Your task to perform on an android device: Open display settings Image 0: 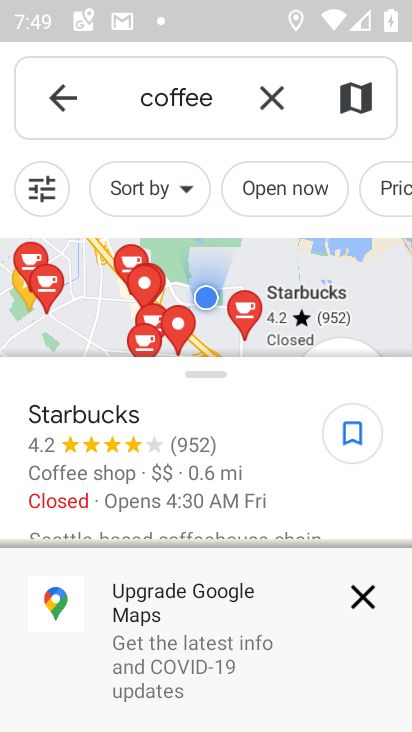
Step 0: press home button
Your task to perform on an android device: Open display settings Image 1: 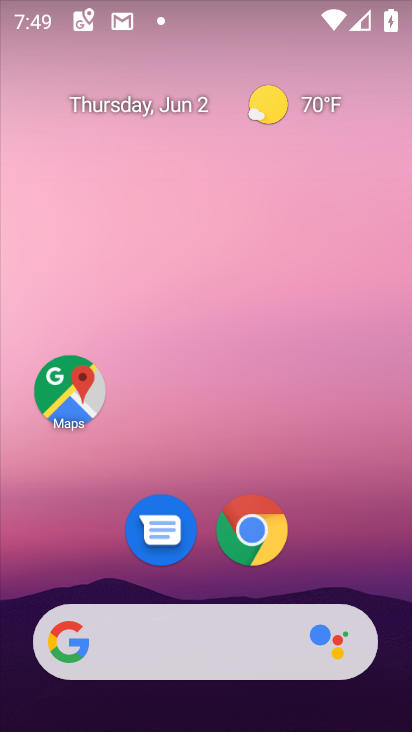
Step 1: drag from (147, 494) to (147, 227)
Your task to perform on an android device: Open display settings Image 2: 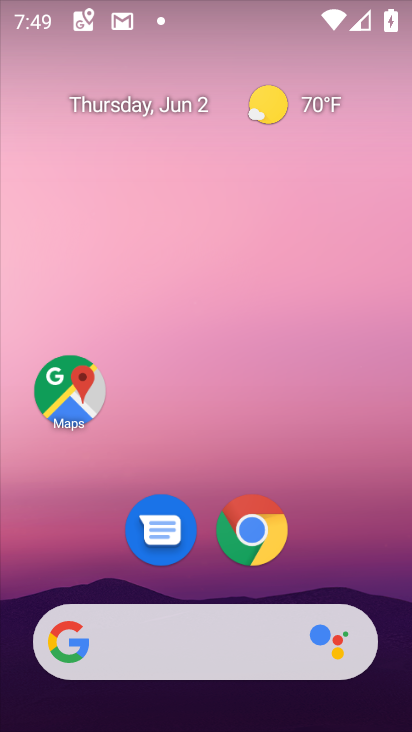
Step 2: drag from (177, 600) to (183, 274)
Your task to perform on an android device: Open display settings Image 3: 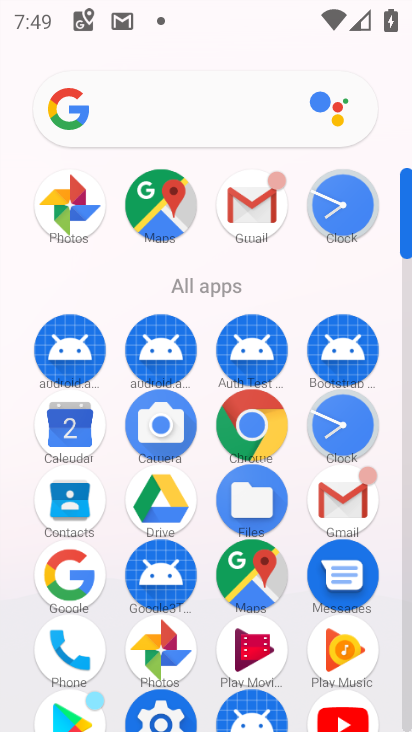
Step 3: drag from (220, 691) to (225, 204)
Your task to perform on an android device: Open display settings Image 4: 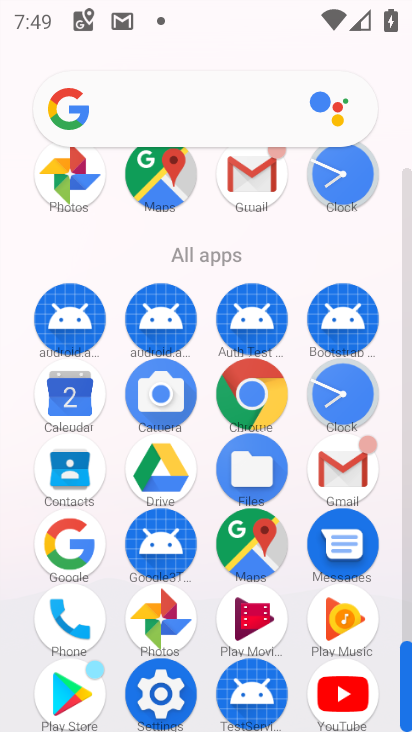
Step 4: click (169, 703)
Your task to perform on an android device: Open display settings Image 5: 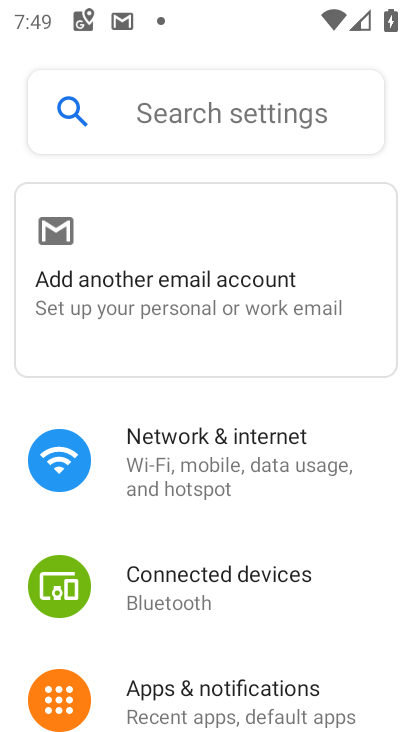
Step 5: drag from (211, 699) to (258, 185)
Your task to perform on an android device: Open display settings Image 6: 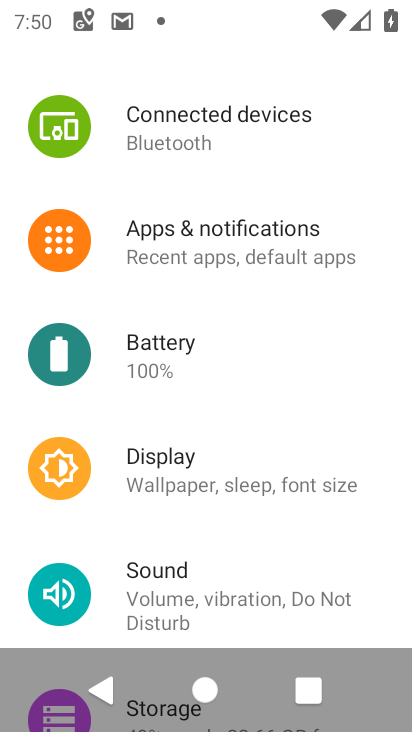
Step 6: click (172, 458)
Your task to perform on an android device: Open display settings Image 7: 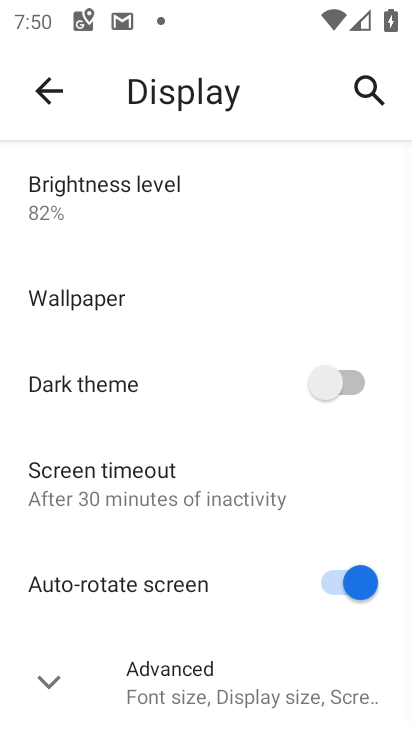
Step 7: drag from (169, 682) to (209, 310)
Your task to perform on an android device: Open display settings Image 8: 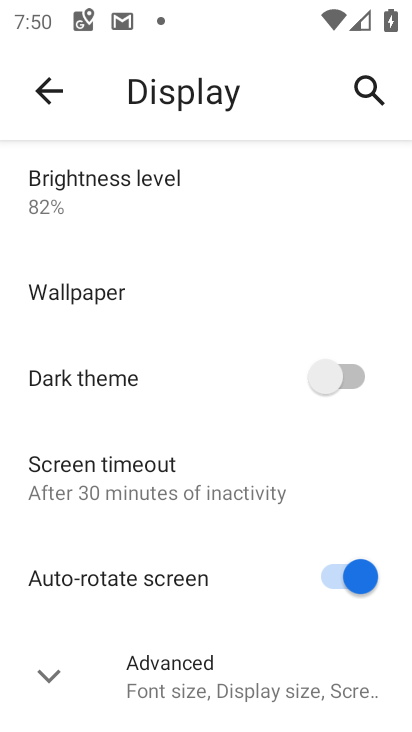
Step 8: click (193, 668)
Your task to perform on an android device: Open display settings Image 9: 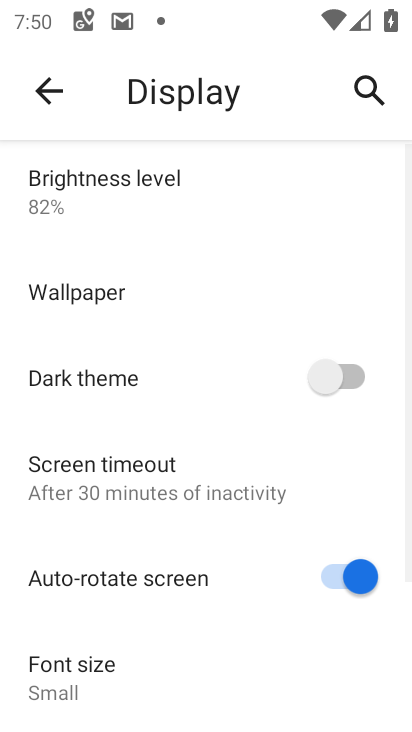
Step 9: task complete